Your task to perform on an android device: Search for seafood restaurants on Google Maps Image 0: 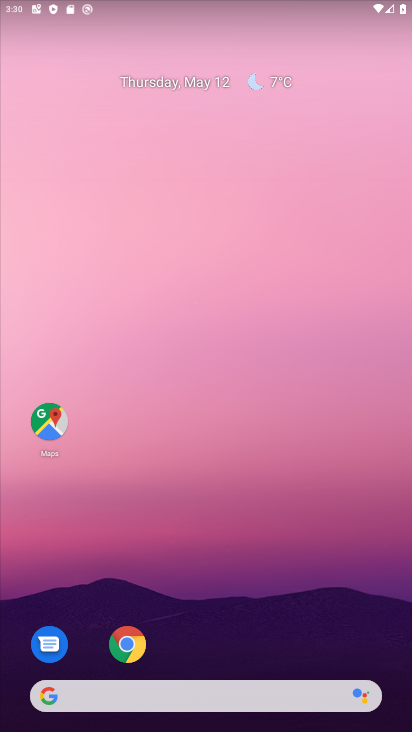
Step 0: click (47, 424)
Your task to perform on an android device: Search for seafood restaurants on Google Maps Image 1: 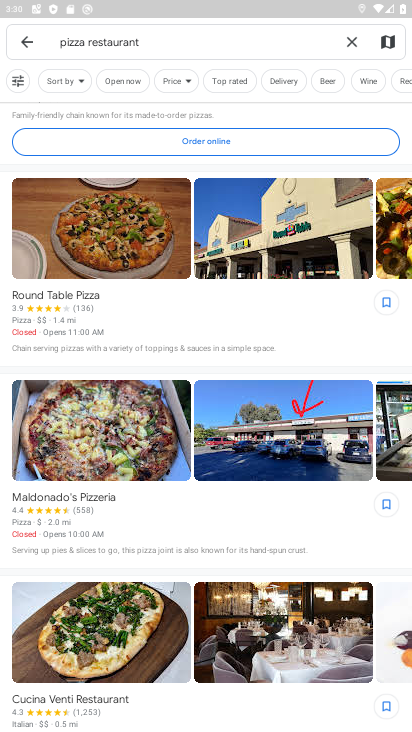
Step 1: click (349, 40)
Your task to perform on an android device: Search for seafood restaurants on Google Maps Image 2: 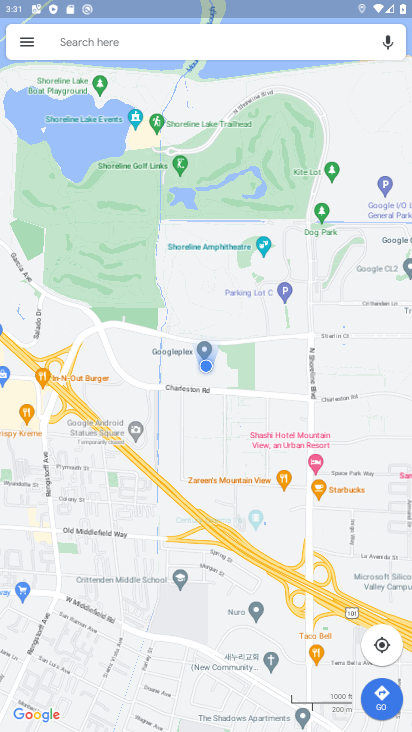
Step 2: click (160, 38)
Your task to perform on an android device: Search for seafood restaurants on Google Maps Image 3: 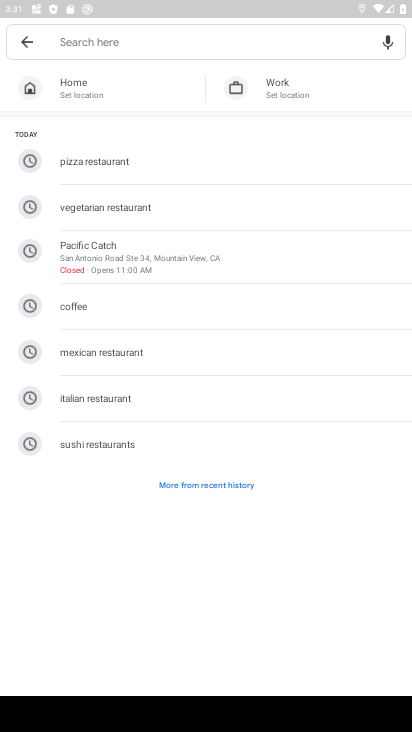
Step 3: type "seafood"
Your task to perform on an android device: Search for seafood restaurants on Google Maps Image 4: 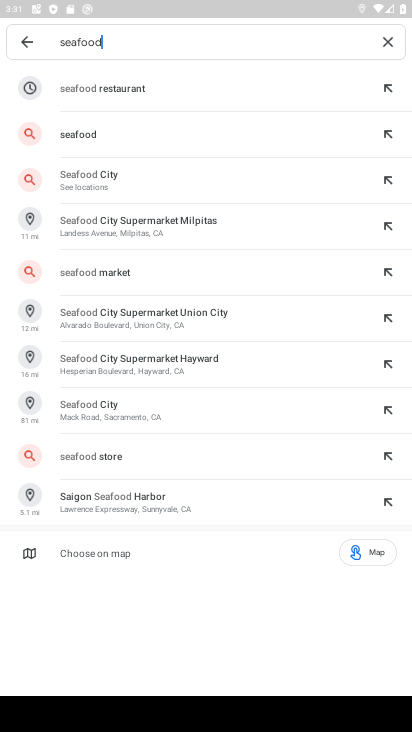
Step 4: click (120, 92)
Your task to perform on an android device: Search for seafood restaurants on Google Maps Image 5: 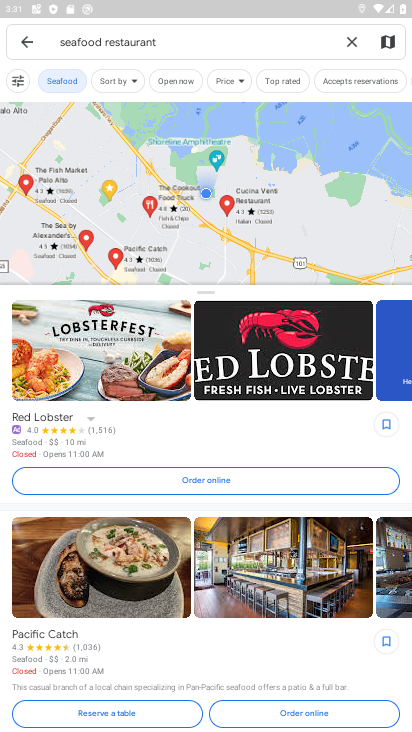
Step 5: task complete